Your task to perform on an android device: toggle notifications settings in the gmail app Image 0: 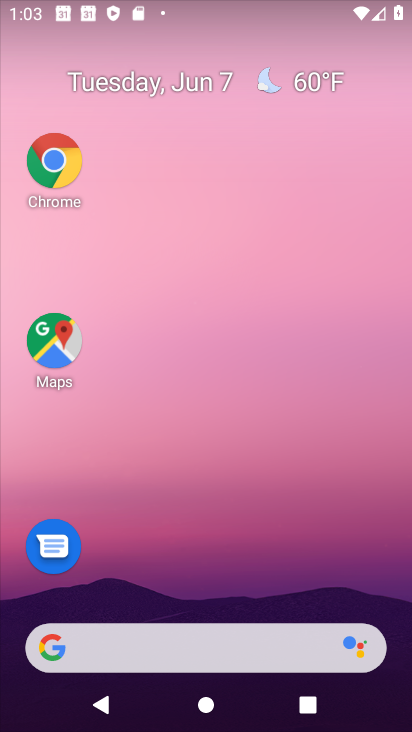
Step 0: click (228, 90)
Your task to perform on an android device: toggle notifications settings in the gmail app Image 1: 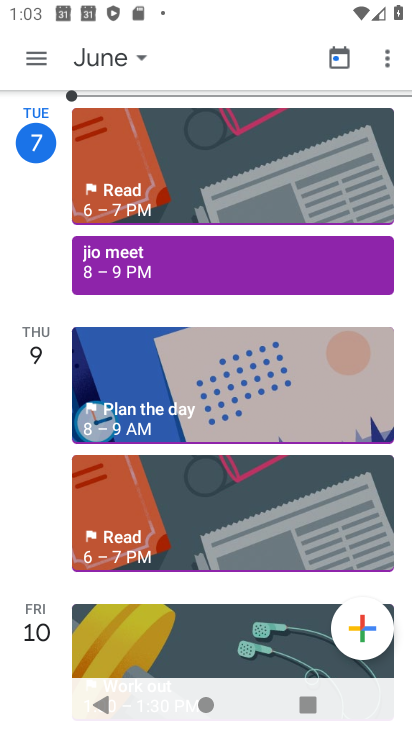
Step 1: drag from (228, 619) to (332, 255)
Your task to perform on an android device: toggle notifications settings in the gmail app Image 2: 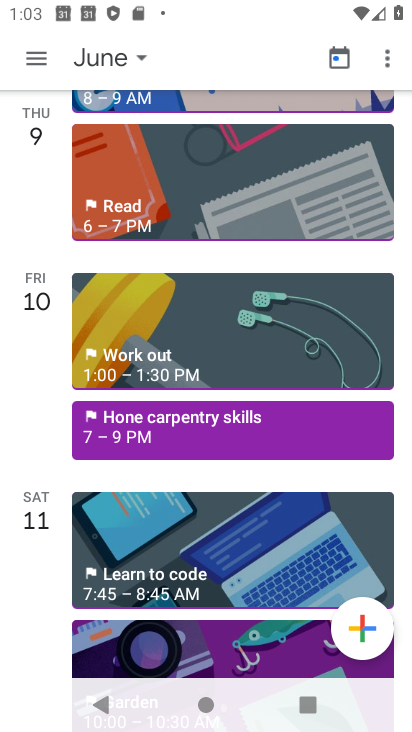
Step 2: click (50, 56)
Your task to perform on an android device: toggle notifications settings in the gmail app Image 3: 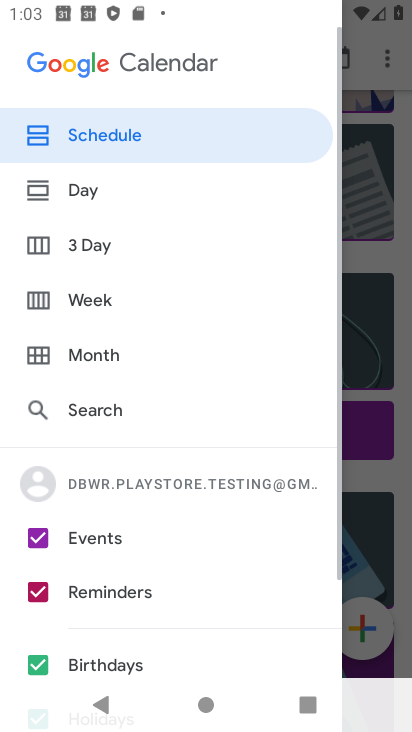
Step 3: drag from (144, 549) to (209, 263)
Your task to perform on an android device: toggle notifications settings in the gmail app Image 4: 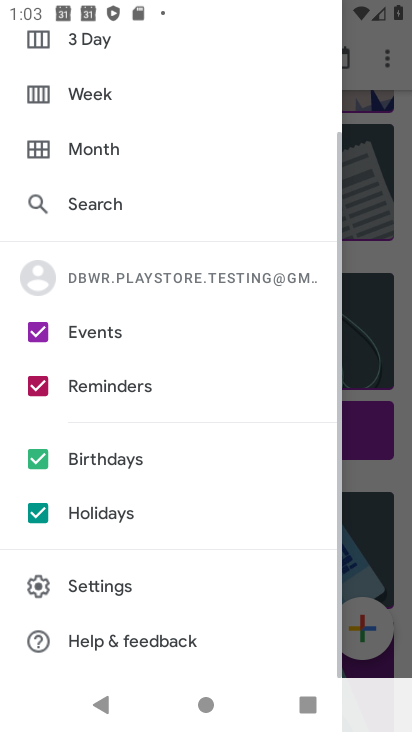
Step 4: press home button
Your task to perform on an android device: toggle notifications settings in the gmail app Image 5: 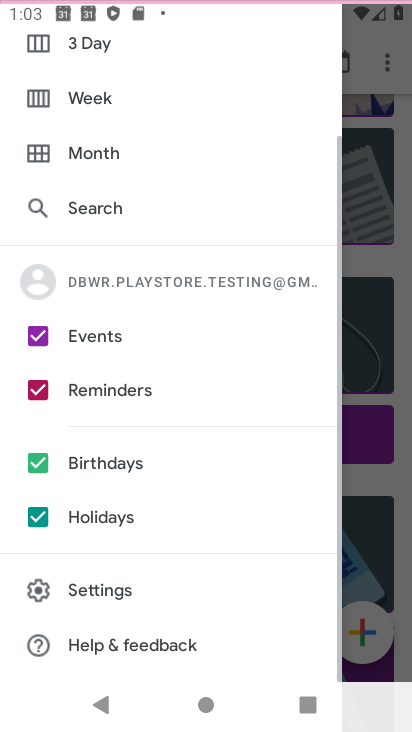
Step 5: drag from (242, 562) to (339, 184)
Your task to perform on an android device: toggle notifications settings in the gmail app Image 6: 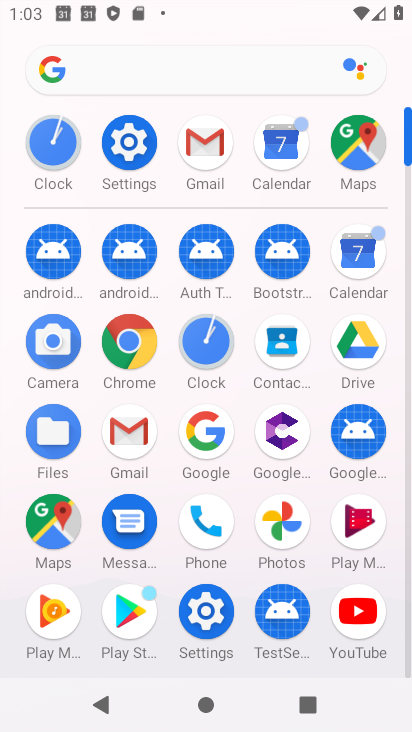
Step 6: click (141, 444)
Your task to perform on an android device: toggle notifications settings in the gmail app Image 7: 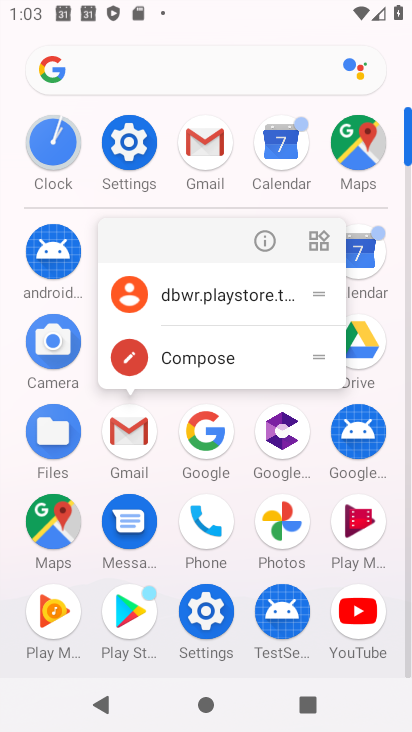
Step 7: click (266, 231)
Your task to perform on an android device: toggle notifications settings in the gmail app Image 8: 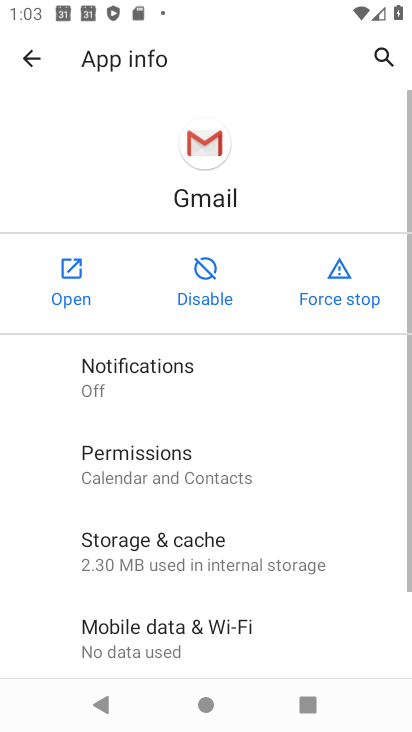
Step 8: click (60, 258)
Your task to perform on an android device: toggle notifications settings in the gmail app Image 9: 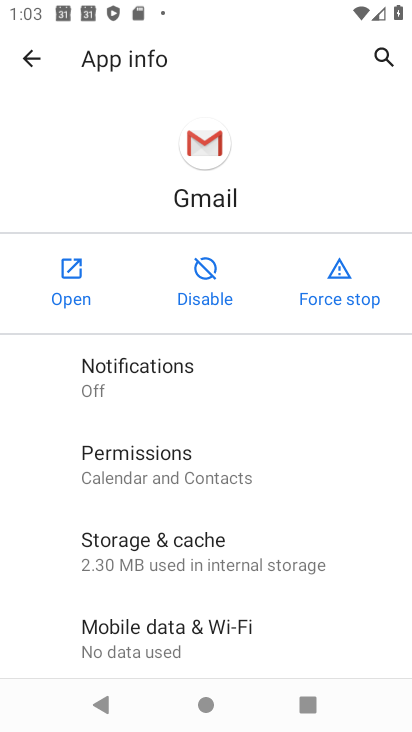
Step 9: click (59, 257)
Your task to perform on an android device: toggle notifications settings in the gmail app Image 10: 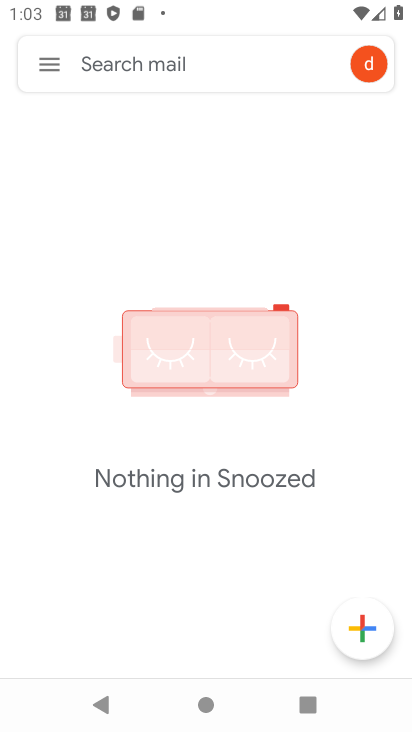
Step 10: drag from (221, 521) to (273, 287)
Your task to perform on an android device: toggle notifications settings in the gmail app Image 11: 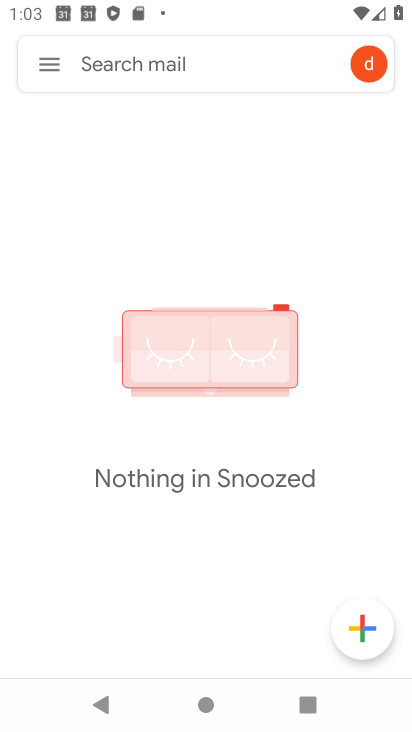
Step 11: drag from (222, 504) to (220, 265)
Your task to perform on an android device: toggle notifications settings in the gmail app Image 12: 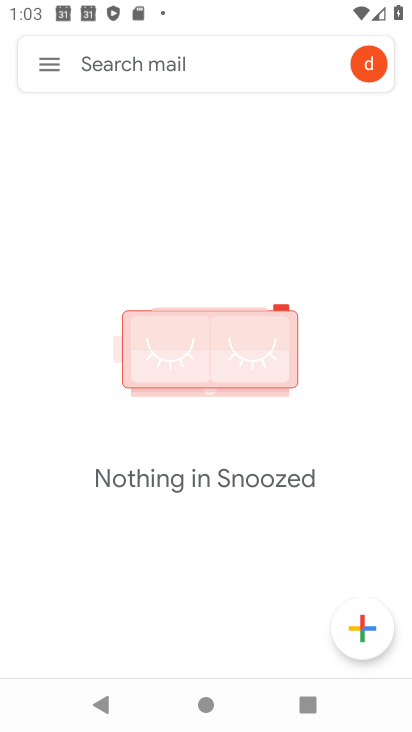
Step 12: click (50, 88)
Your task to perform on an android device: toggle notifications settings in the gmail app Image 13: 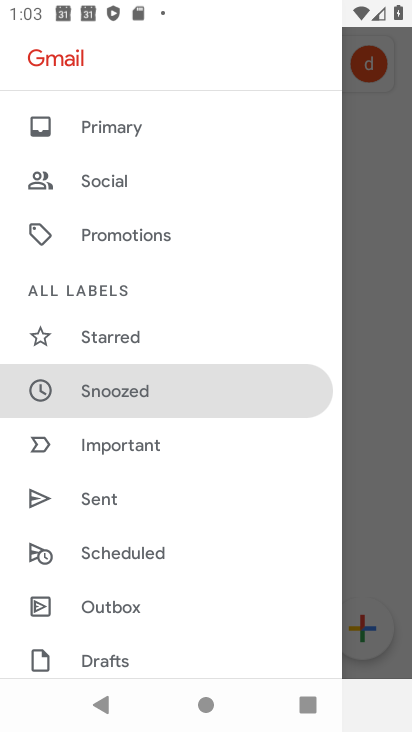
Step 13: drag from (141, 533) to (353, 24)
Your task to perform on an android device: toggle notifications settings in the gmail app Image 14: 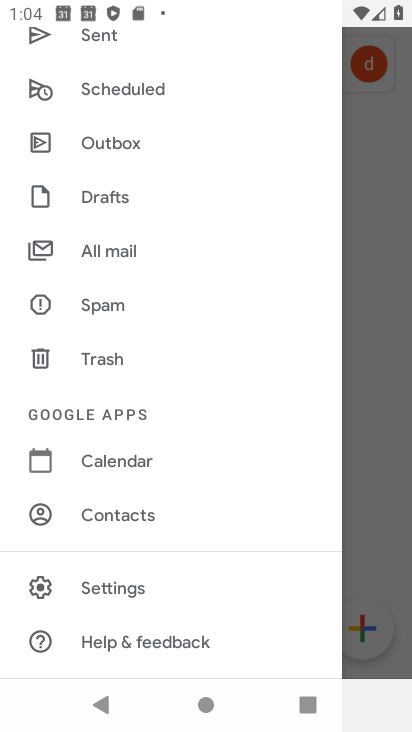
Step 14: click (122, 593)
Your task to perform on an android device: toggle notifications settings in the gmail app Image 15: 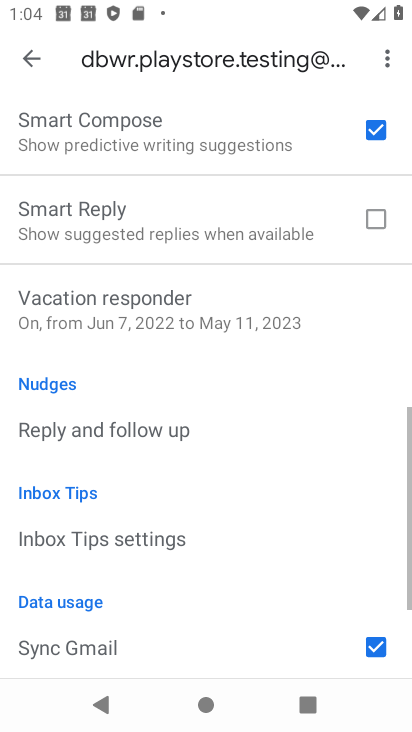
Step 15: drag from (148, 234) to (262, 726)
Your task to perform on an android device: toggle notifications settings in the gmail app Image 16: 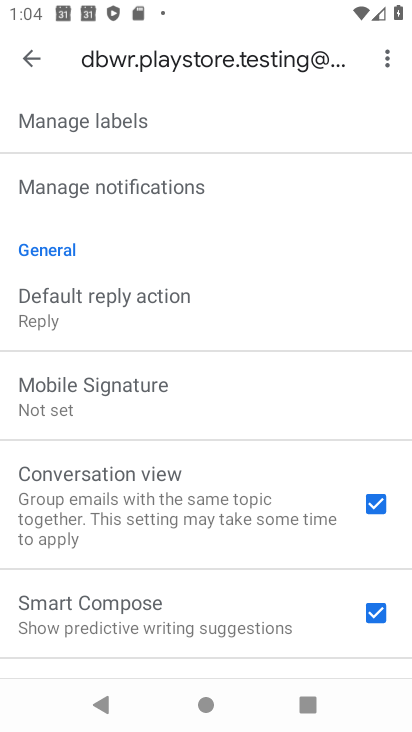
Step 16: click (174, 196)
Your task to perform on an android device: toggle notifications settings in the gmail app Image 17: 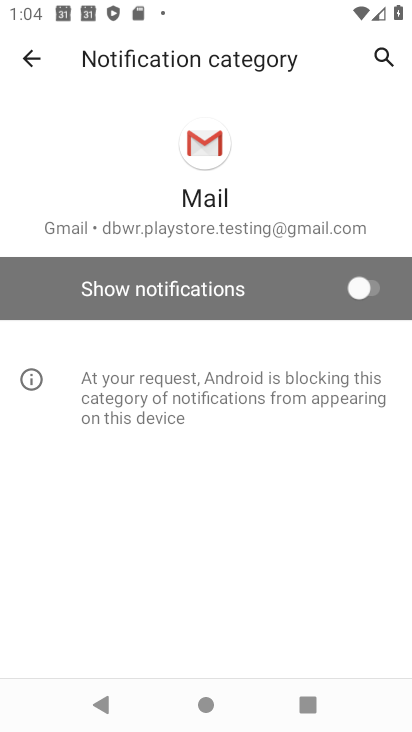
Step 17: click (341, 292)
Your task to perform on an android device: toggle notifications settings in the gmail app Image 18: 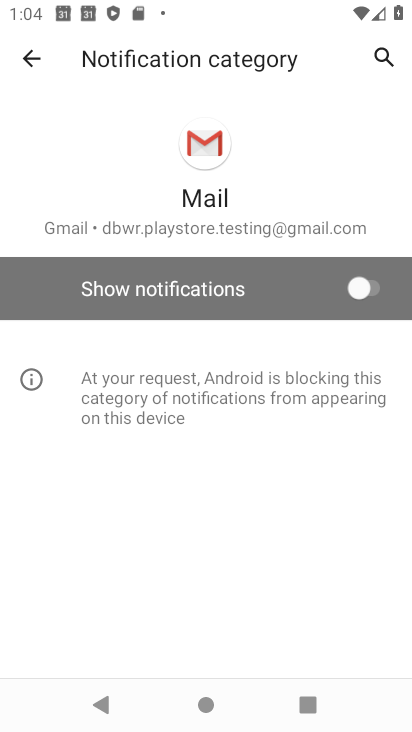
Step 18: task complete